Your task to perform on an android device: Open the calendar app, open the side menu, and click the "Day" option Image 0: 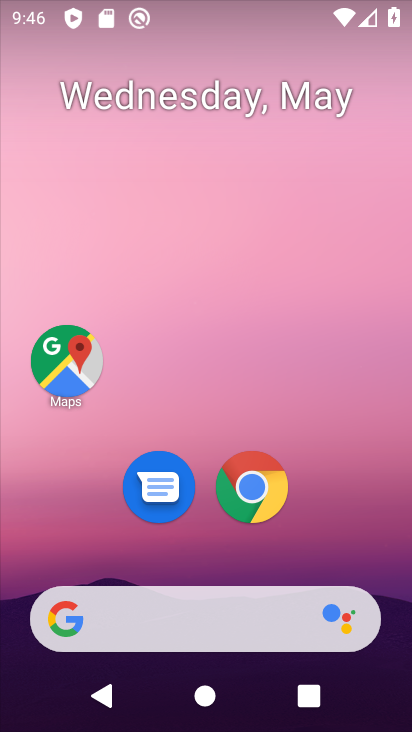
Step 0: press home button
Your task to perform on an android device: Open the calendar app, open the side menu, and click the "Day" option Image 1: 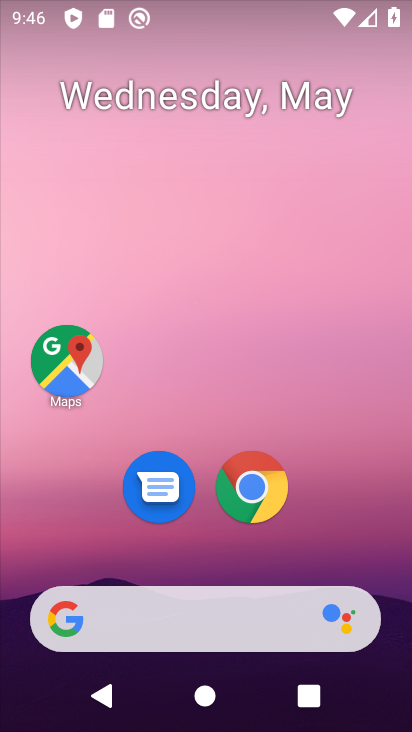
Step 1: drag from (200, 618) to (251, 151)
Your task to perform on an android device: Open the calendar app, open the side menu, and click the "Day" option Image 2: 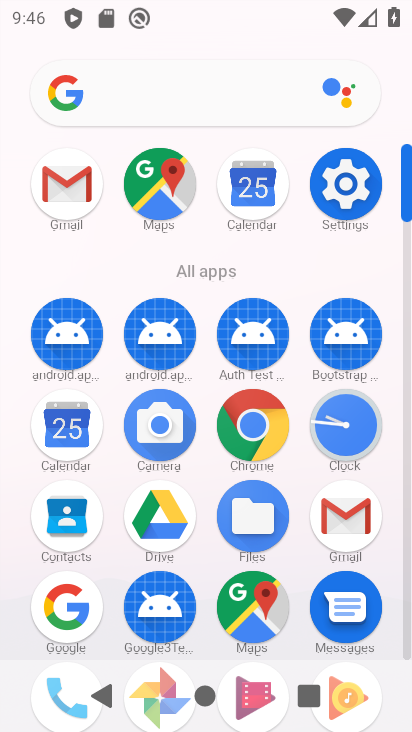
Step 2: click (253, 211)
Your task to perform on an android device: Open the calendar app, open the side menu, and click the "Day" option Image 3: 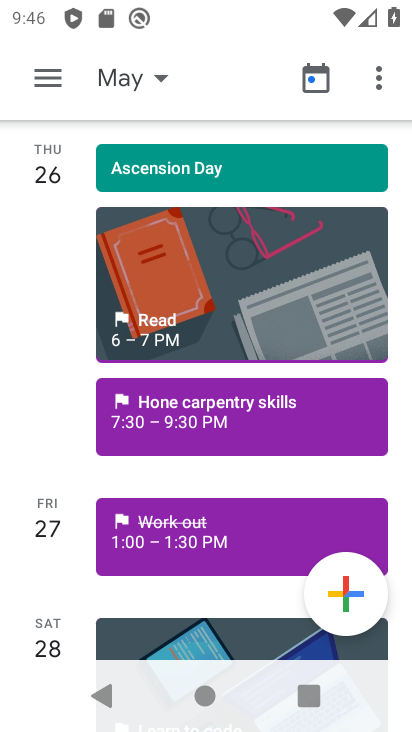
Step 3: click (31, 85)
Your task to perform on an android device: Open the calendar app, open the side menu, and click the "Day" option Image 4: 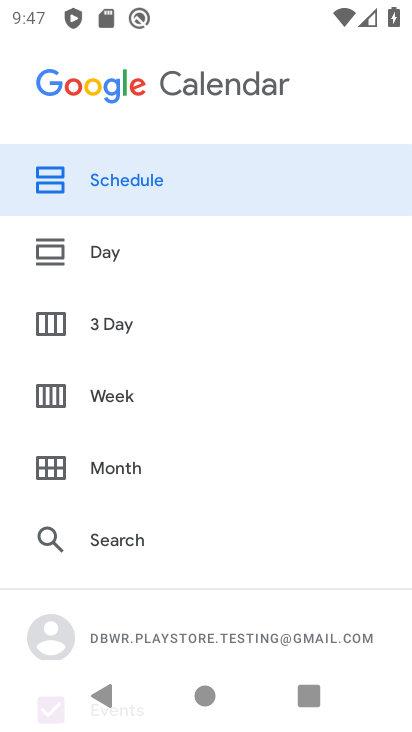
Step 4: click (115, 246)
Your task to perform on an android device: Open the calendar app, open the side menu, and click the "Day" option Image 5: 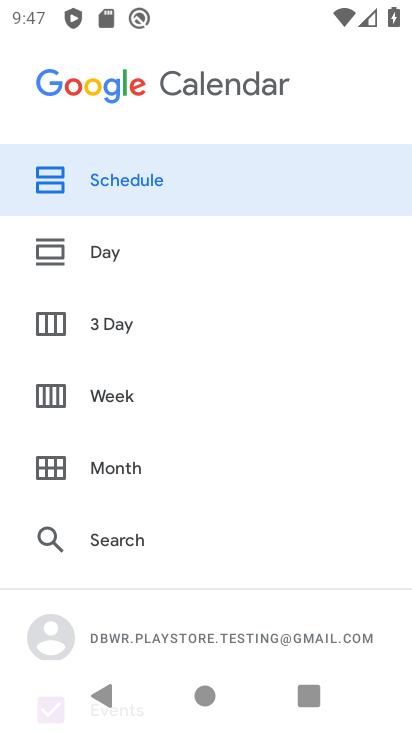
Step 5: click (108, 254)
Your task to perform on an android device: Open the calendar app, open the side menu, and click the "Day" option Image 6: 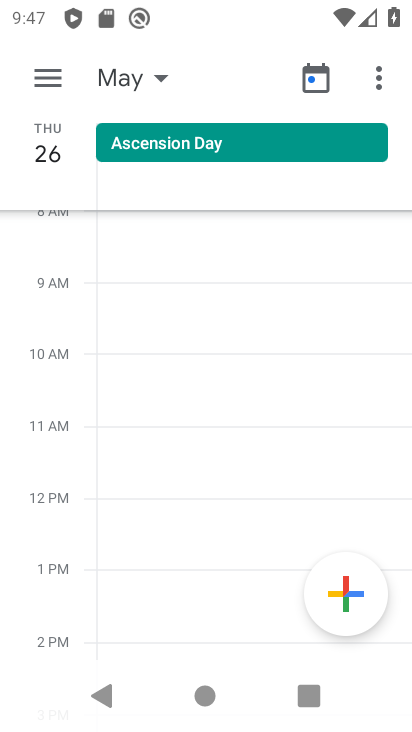
Step 6: task complete